Your task to perform on an android device: Clear the shopping cart on target. Image 0: 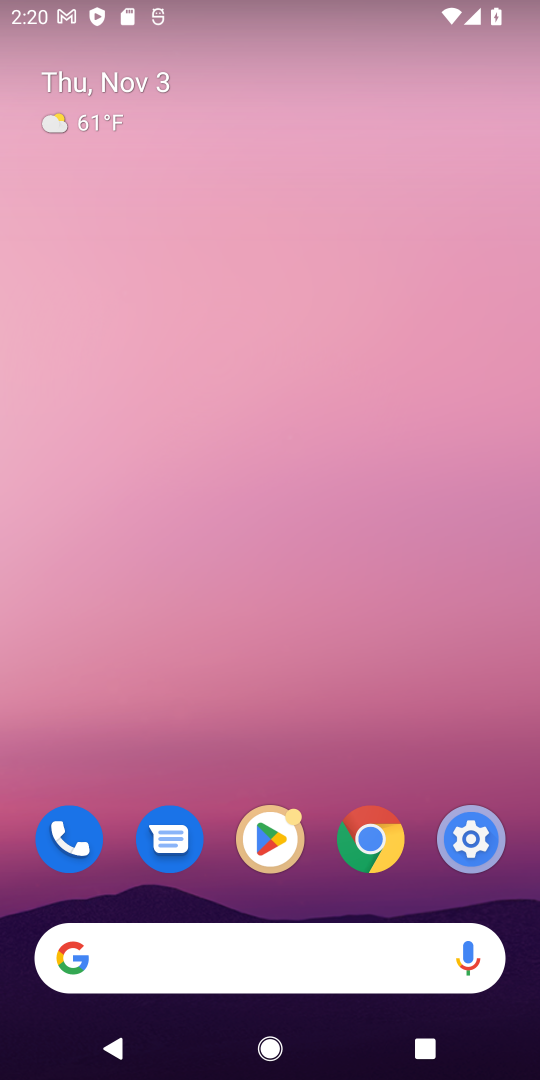
Step 0: click (259, 969)
Your task to perform on an android device: Clear the shopping cart on target. Image 1: 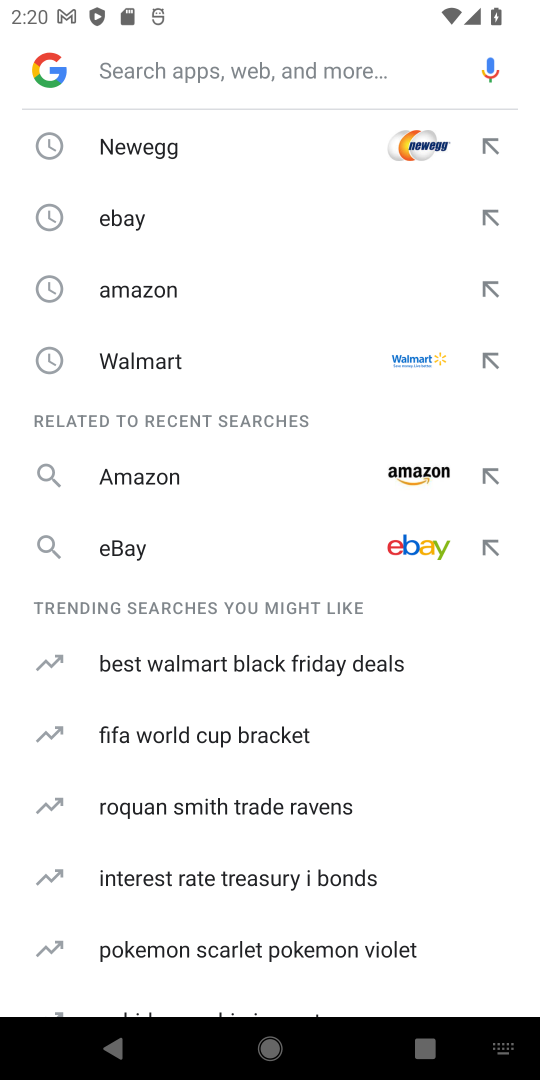
Step 1: type "target"
Your task to perform on an android device: Clear the shopping cart on target. Image 2: 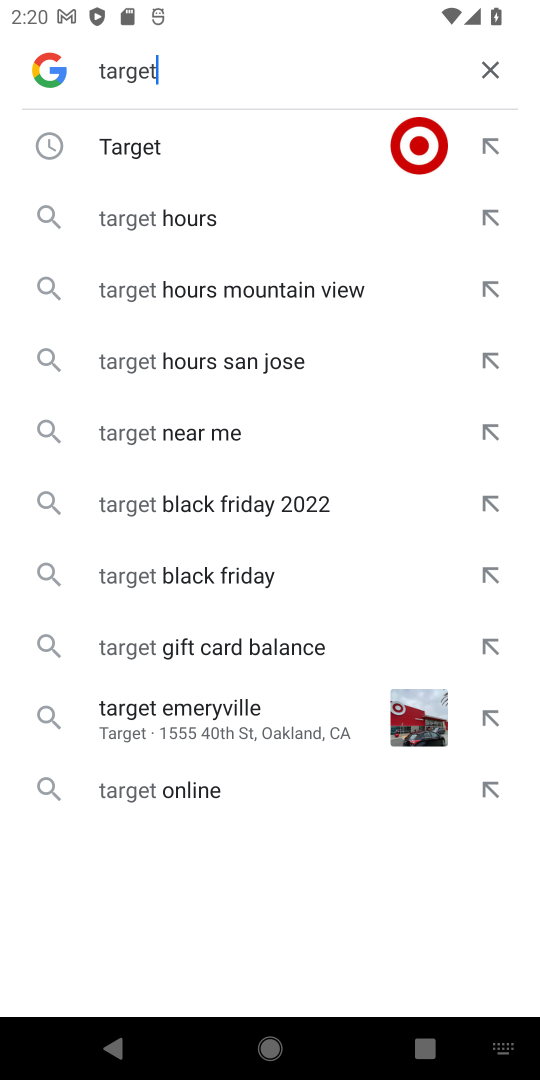
Step 2: click (239, 144)
Your task to perform on an android device: Clear the shopping cart on target. Image 3: 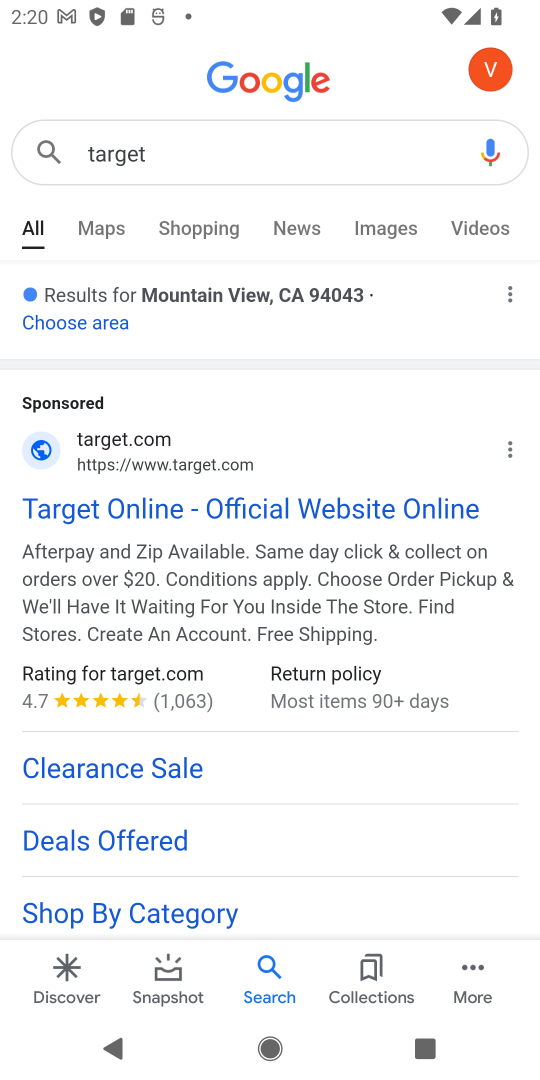
Step 3: click (116, 517)
Your task to perform on an android device: Clear the shopping cart on target. Image 4: 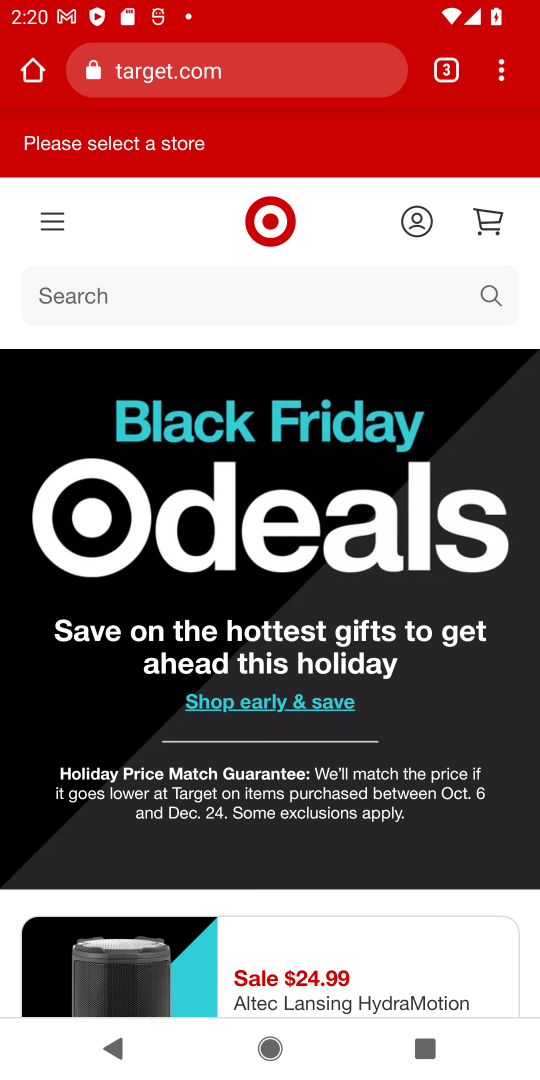
Step 4: click (182, 283)
Your task to perform on an android device: Clear the shopping cart on target. Image 5: 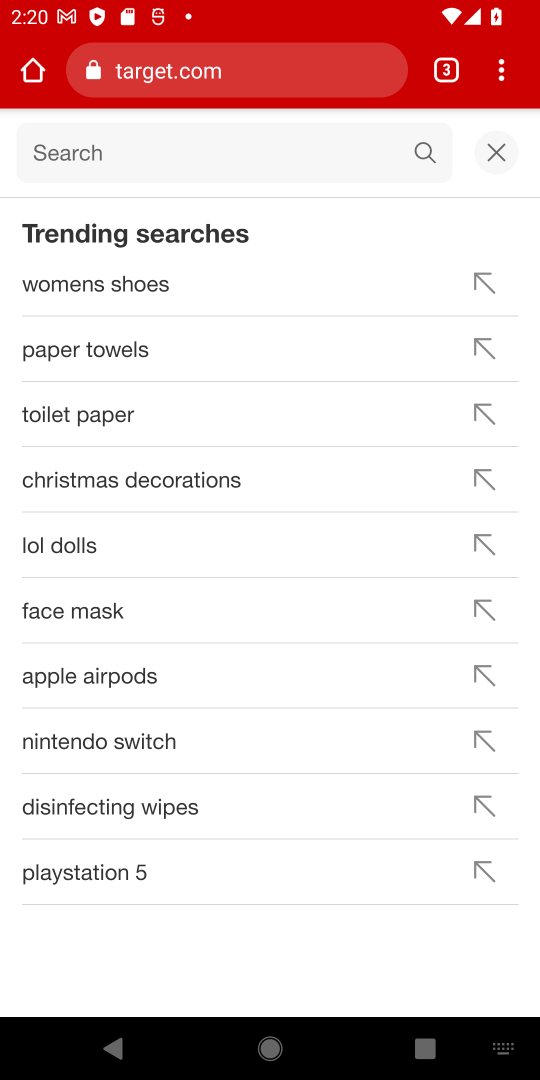
Step 5: click (486, 152)
Your task to perform on an android device: Clear the shopping cart on target. Image 6: 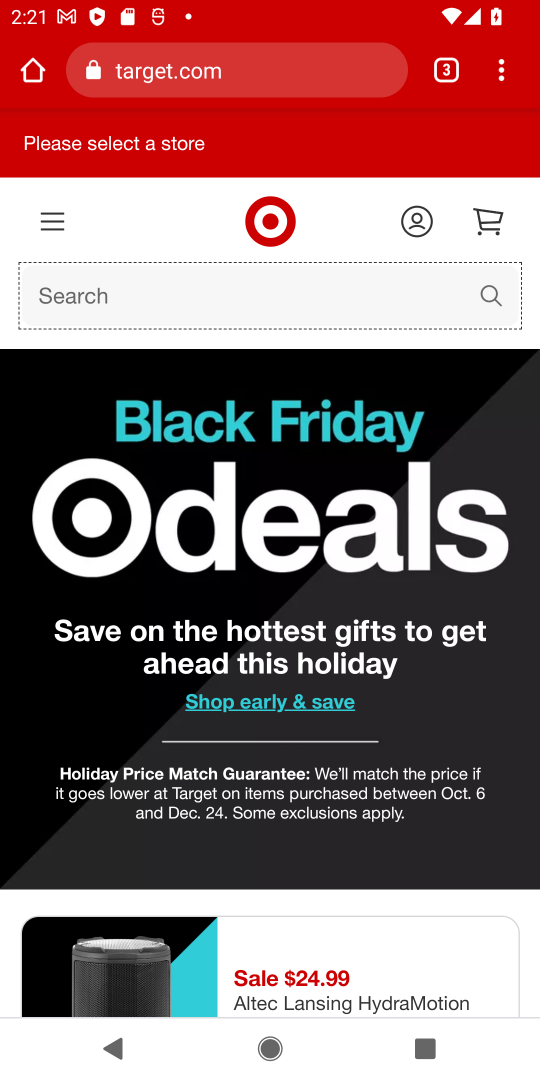
Step 6: click (475, 217)
Your task to perform on an android device: Clear the shopping cart on target. Image 7: 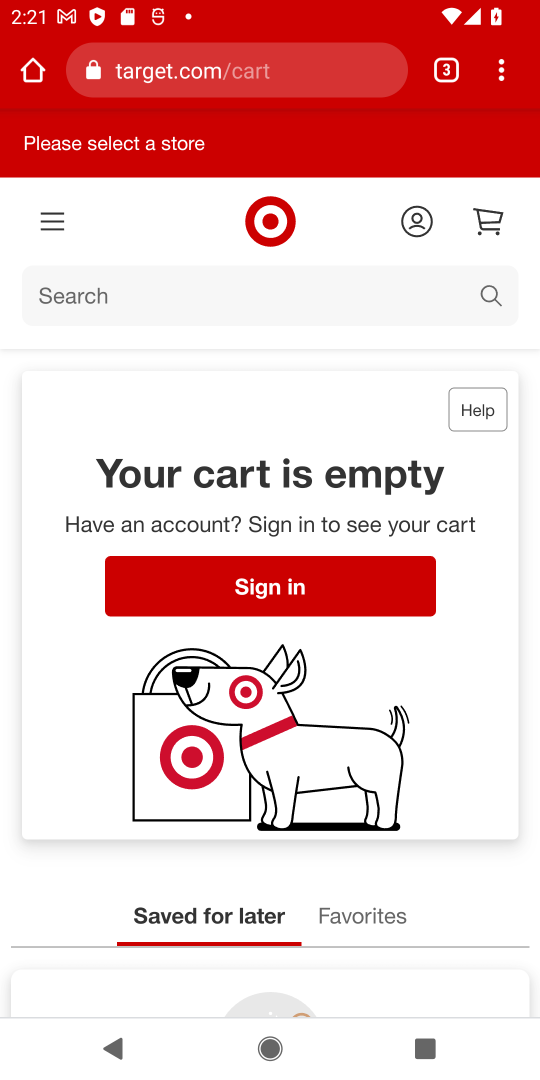
Step 7: task complete